Your task to perform on an android device: change the clock display to digital Image 0: 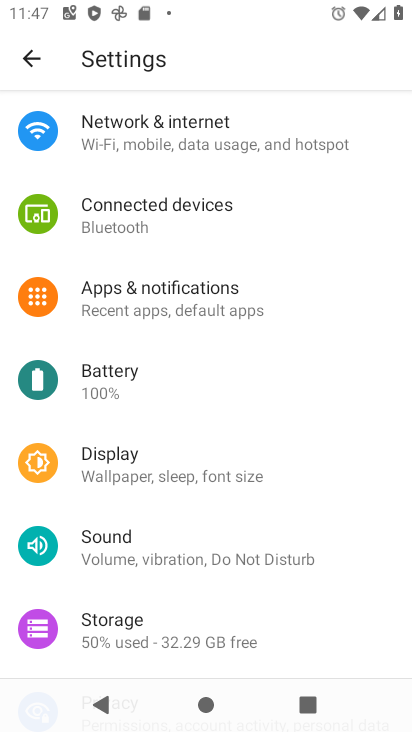
Step 0: press home button
Your task to perform on an android device: change the clock display to digital Image 1: 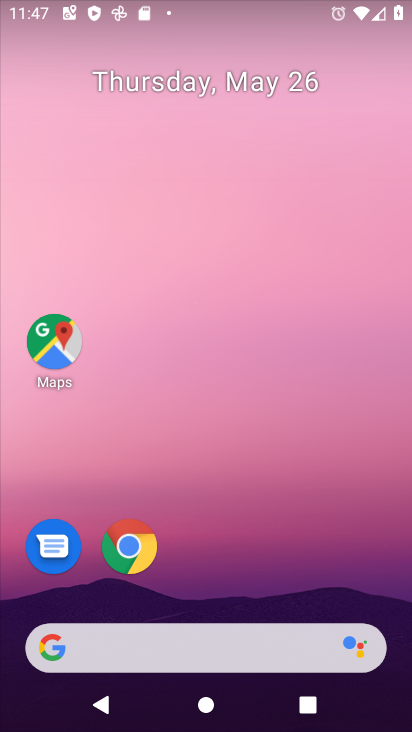
Step 1: drag from (231, 580) to (218, 104)
Your task to perform on an android device: change the clock display to digital Image 2: 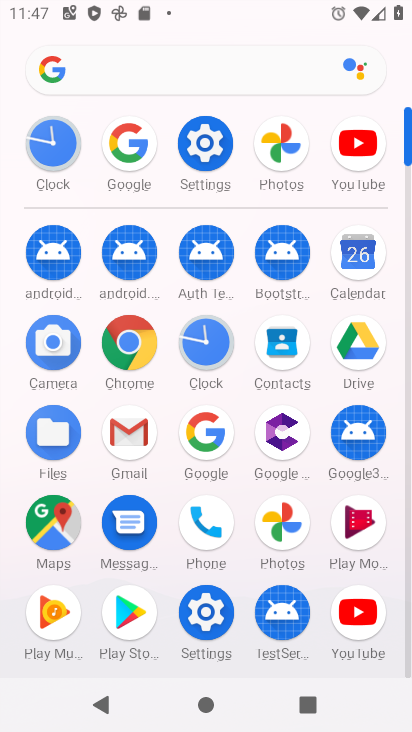
Step 2: click (216, 336)
Your task to perform on an android device: change the clock display to digital Image 3: 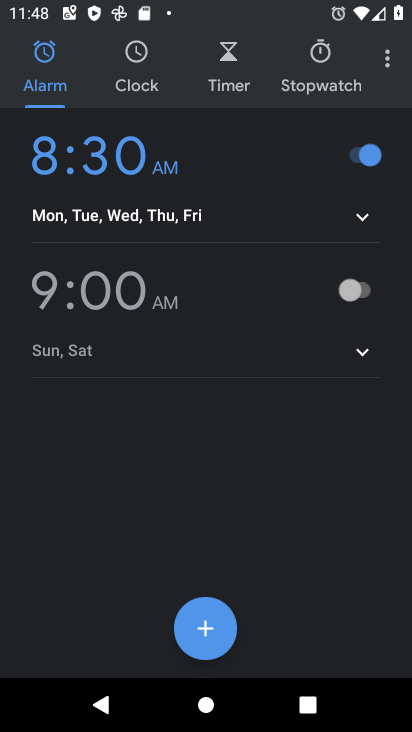
Step 3: click (384, 55)
Your task to perform on an android device: change the clock display to digital Image 4: 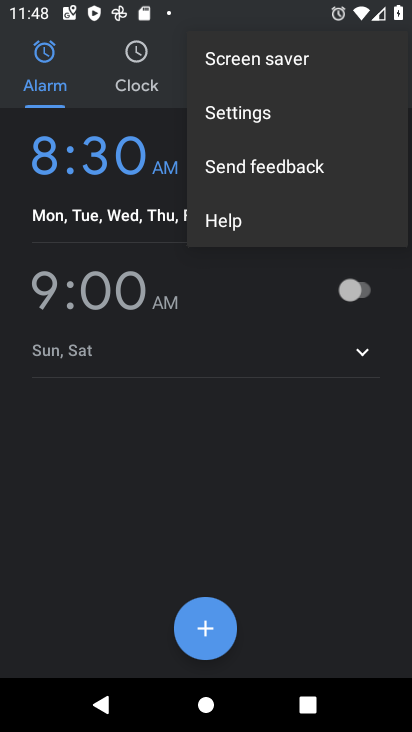
Step 4: click (250, 122)
Your task to perform on an android device: change the clock display to digital Image 5: 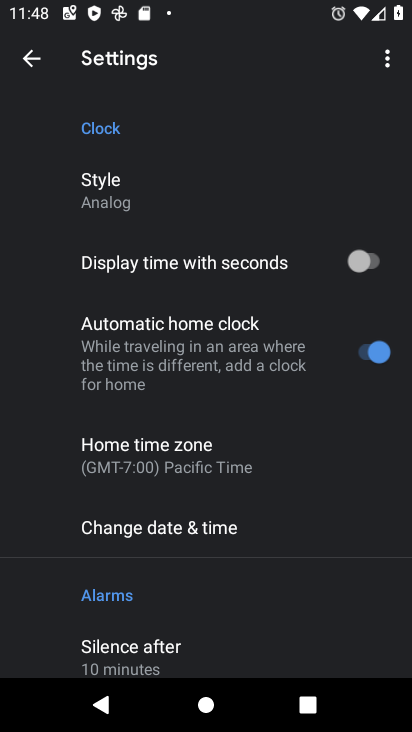
Step 5: click (124, 207)
Your task to perform on an android device: change the clock display to digital Image 6: 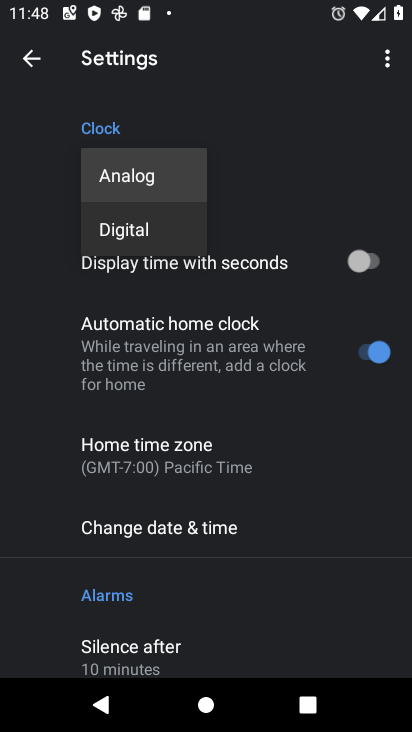
Step 6: click (135, 229)
Your task to perform on an android device: change the clock display to digital Image 7: 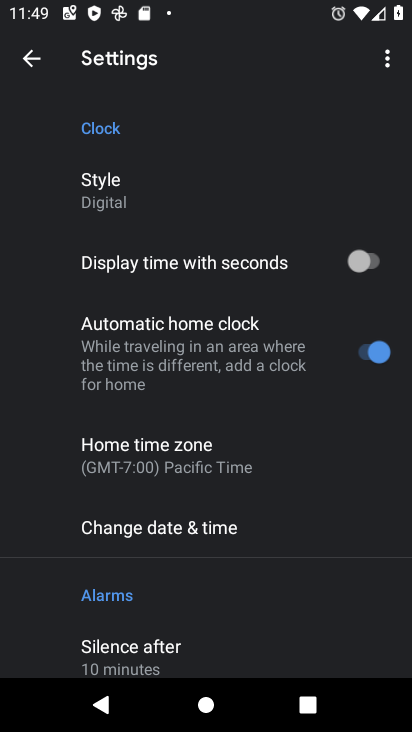
Step 7: task complete